Your task to perform on an android device: What's the weather going to be this weekend? Image 0: 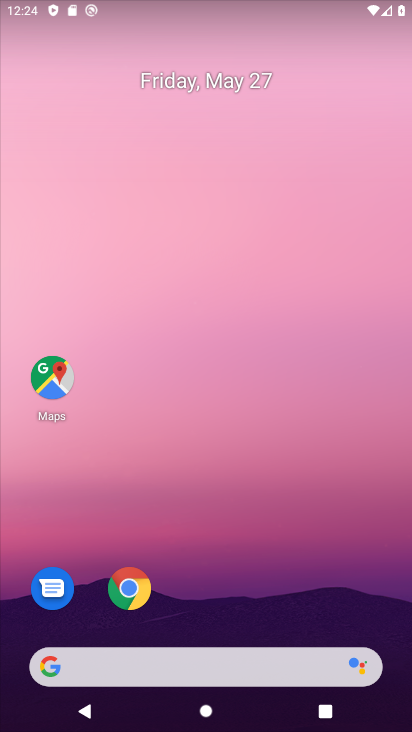
Step 0: drag from (186, 563) to (164, 15)
Your task to perform on an android device: What's the weather going to be this weekend? Image 1: 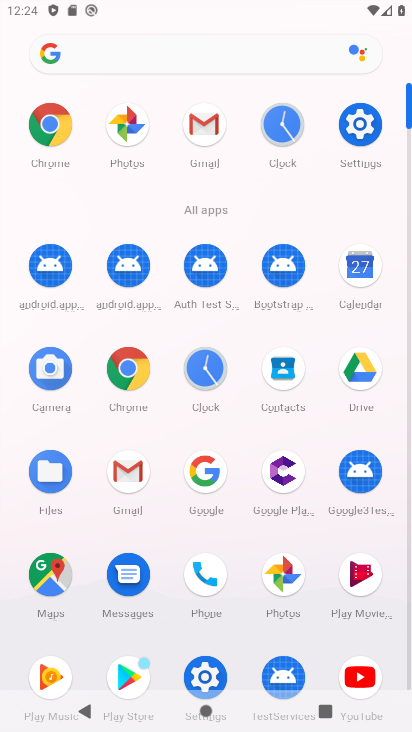
Step 1: press home button
Your task to perform on an android device: What's the weather going to be this weekend? Image 2: 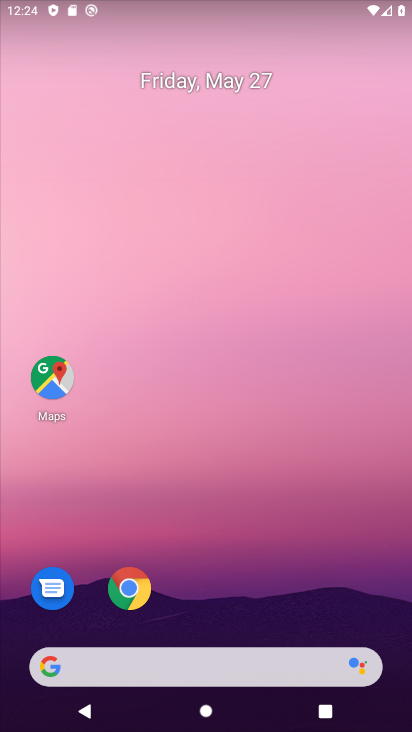
Step 2: drag from (24, 265) to (385, 216)
Your task to perform on an android device: What's the weather going to be this weekend? Image 3: 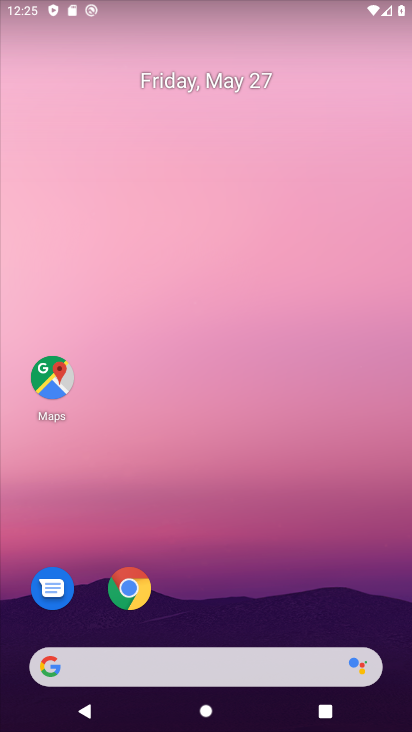
Step 3: drag from (6, 254) to (391, 250)
Your task to perform on an android device: What's the weather going to be this weekend? Image 4: 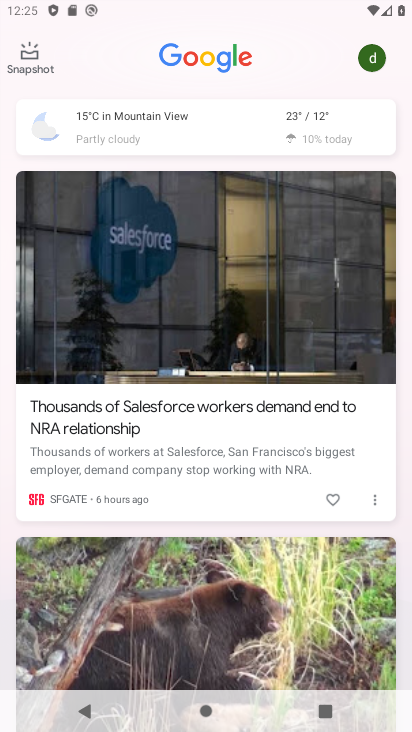
Step 4: click (276, 122)
Your task to perform on an android device: What's the weather going to be this weekend? Image 5: 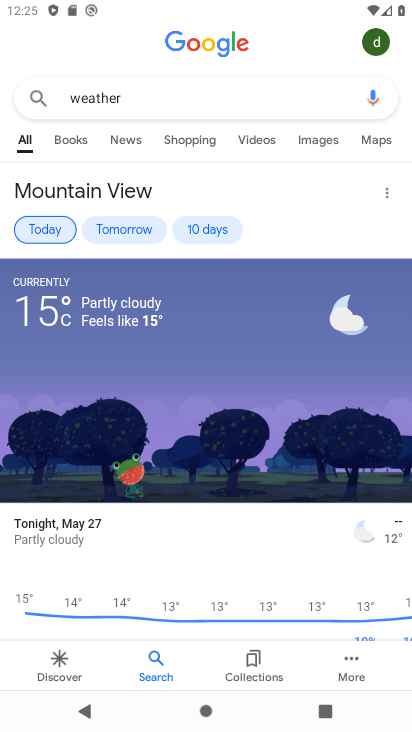
Step 5: click (202, 228)
Your task to perform on an android device: What's the weather going to be this weekend? Image 6: 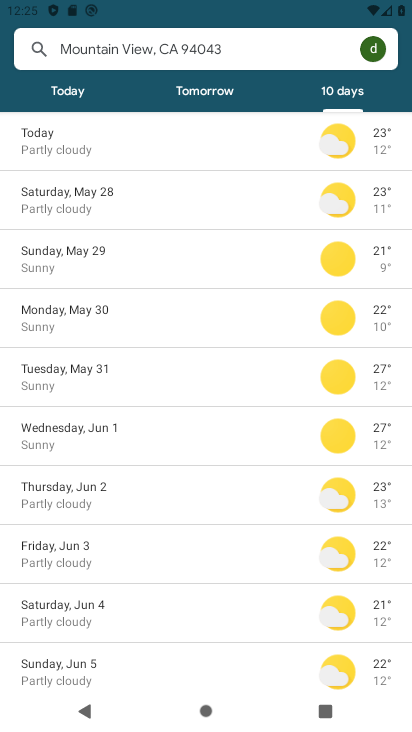
Step 6: task complete